Your task to perform on an android device: create a new album in the google photos Image 0: 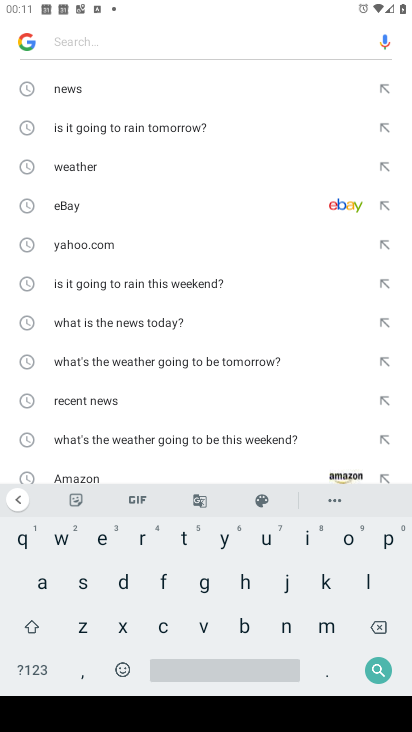
Step 0: press home button
Your task to perform on an android device: create a new album in the google photos Image 1: 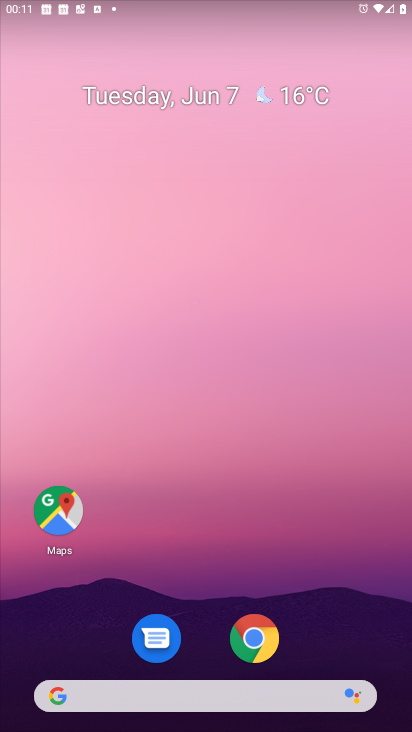
Step 1: drag from (243, 707) to (330, 235)
Your task to perform on an android device: create a new album in the google photos Image 2: 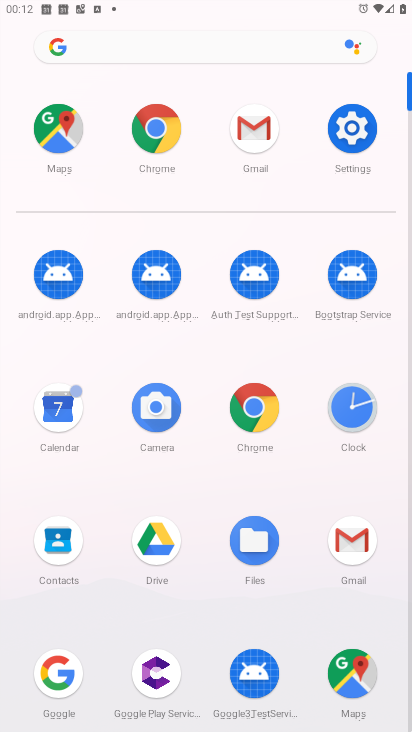
Step 2: drag from (219, 601) to (235, 500)
Your task to perform on an android device: create a new album in the google photos Image 3: 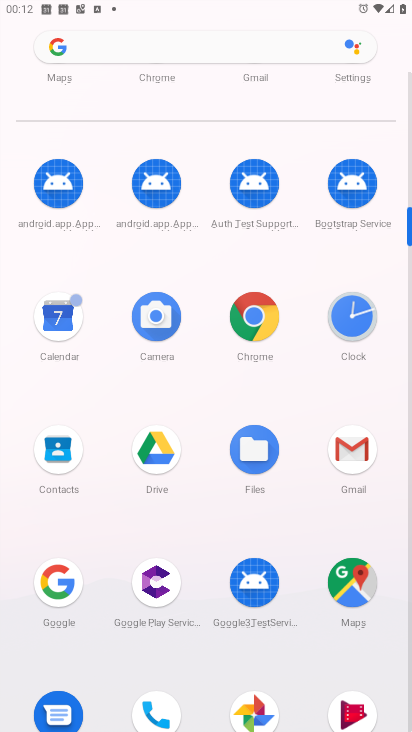
Step 3: click (251, 688)
Your task to perform on an android device: create a new album in the google photos Image 4: 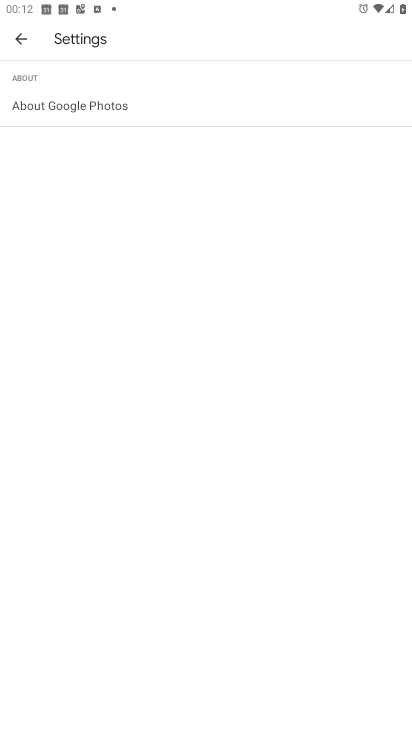
Step 4: click (5, 38)
Your task to perform on an android device: create a new album in the google photos Image 5: 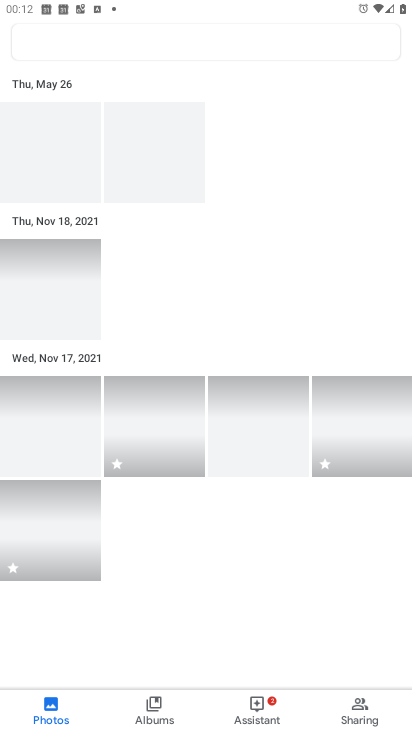
Step 5: click (26, 41)
Your task to perform on an android device: create a new album in the google photos Image 6: 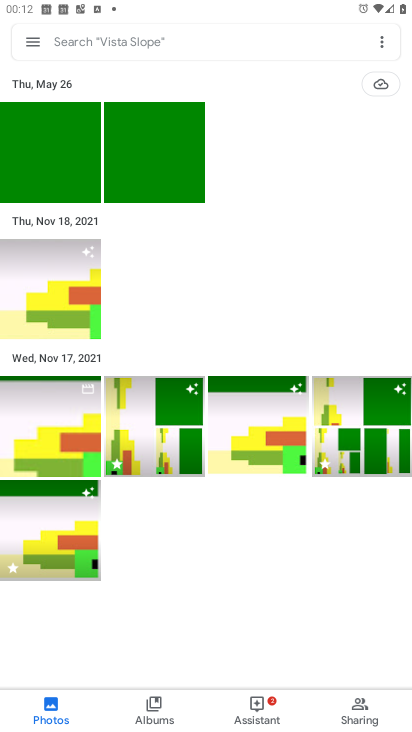
Step 6: click (281, 422)
Your task to perform on an android device: create a new album in the google photos Image 7: 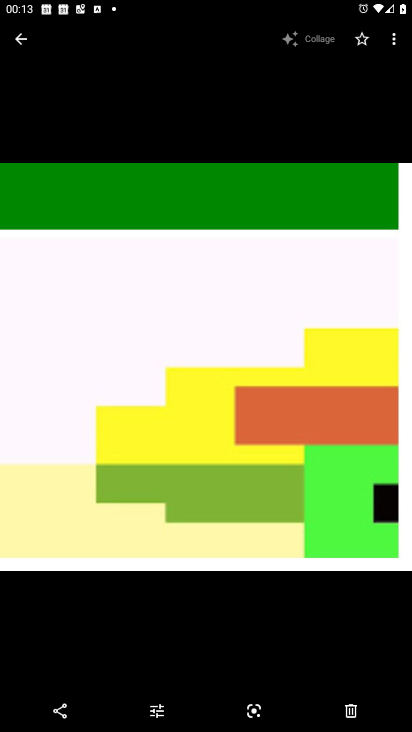
Step 7: click (397, 37)
Your task to perform on an android device: create a new album in the google photos Image 8: 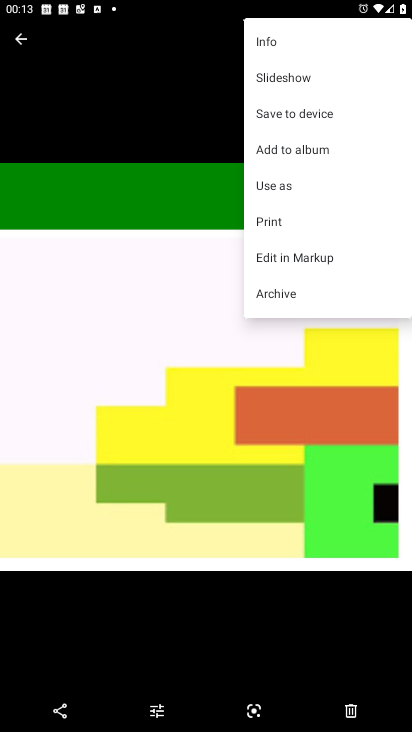
Step 8: click (288, 142)
Your task to perform on an android device: create a new album in the google photos Image 9: 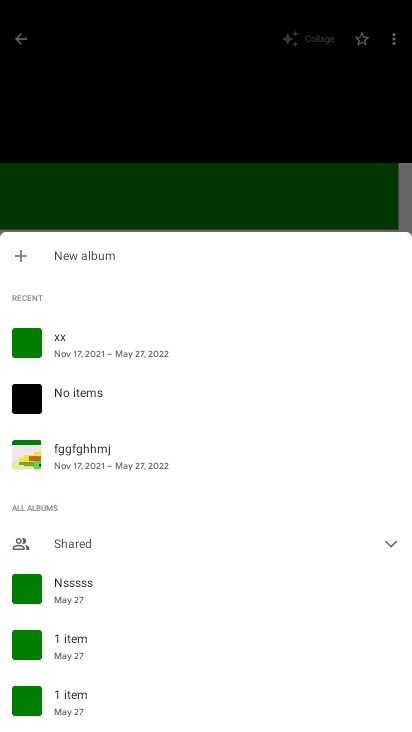
Step 9: click (57, 241)
Your task to perform on an android device: create a new album in the google photos Image 10: 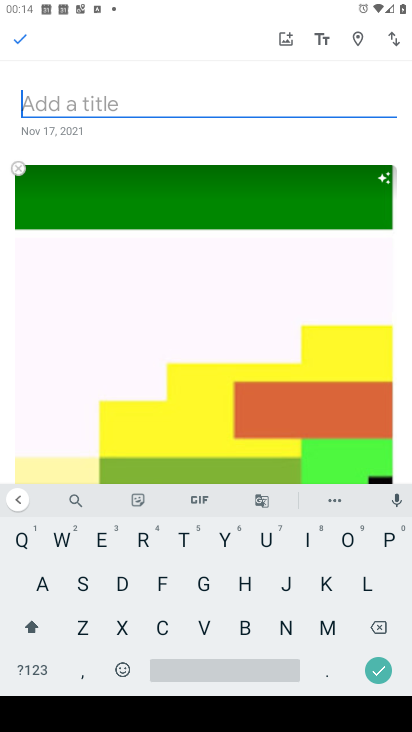
Step 10: click (214, 570)
Your task to perform on an android device: create a new album in the google photos Image 11: 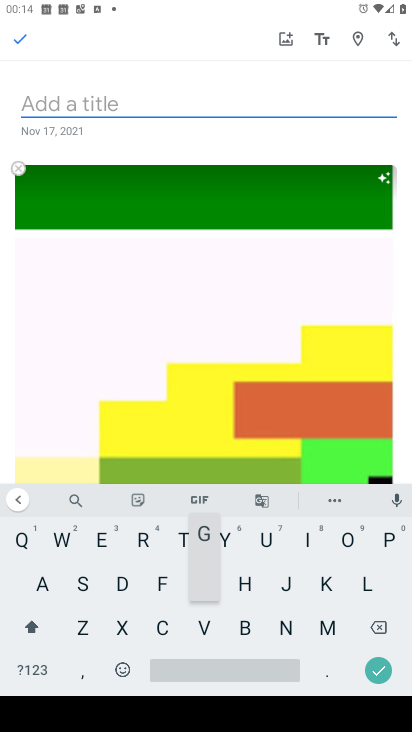
Step 11: click (97, 579)
Your task to perform on an android device: create a new album in the google photos Image 12: 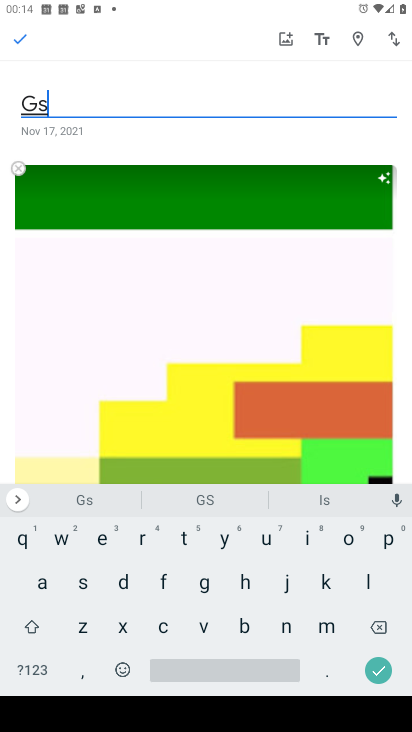
Step 12: click (195, 617)
Your task to perform on an android device: create a new album in the google photos Image 13: 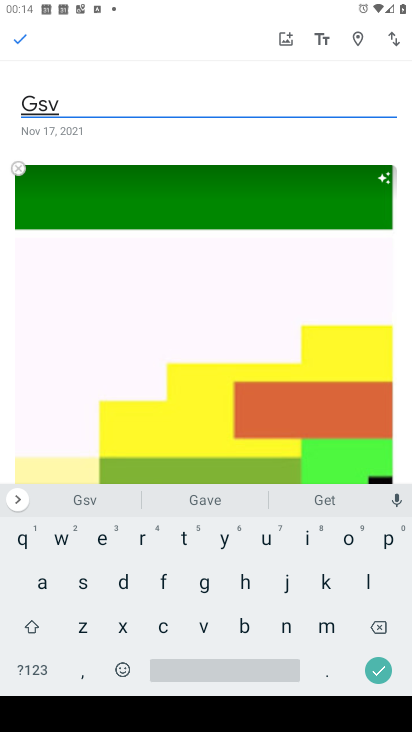
Step 13: click (284, 573)
Your task to perform on an android device: create a new album in the google photos Image 14: 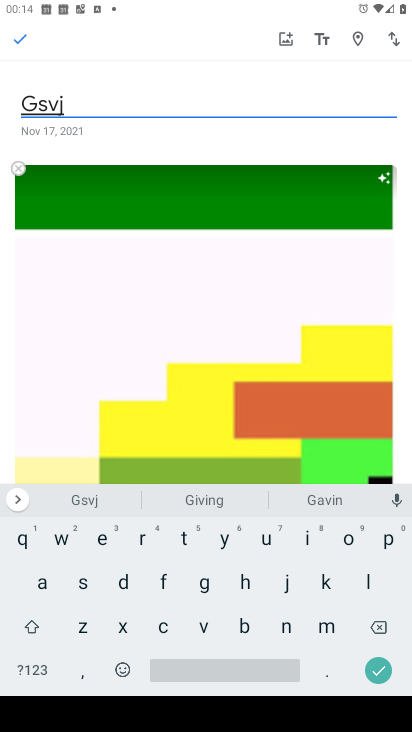
Step 14: click (10, 44)
Your task to perform on an android device: create a new album in the google photos Image 15: 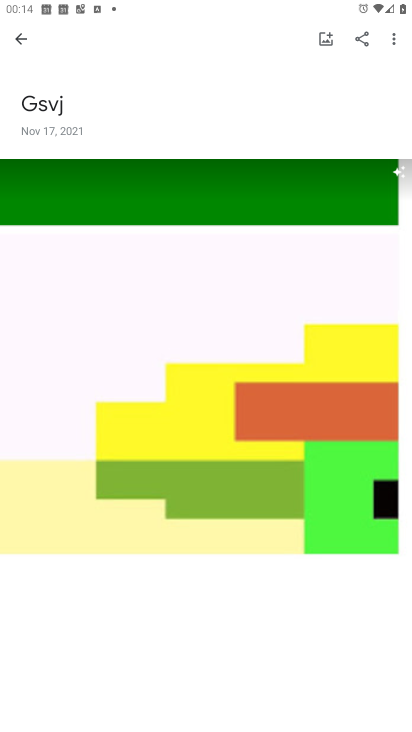
Step 15: task complete